Your task to perform on an android device: Go to Maps Image 0: 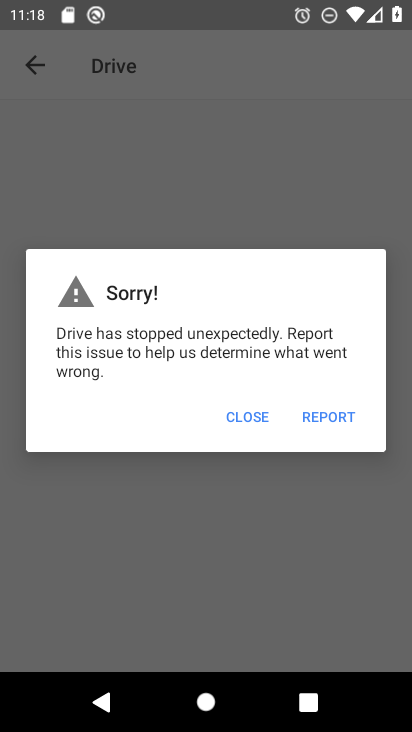
Step 0: press home button
Your task to perform on an android device: Go to Maps Image 1: 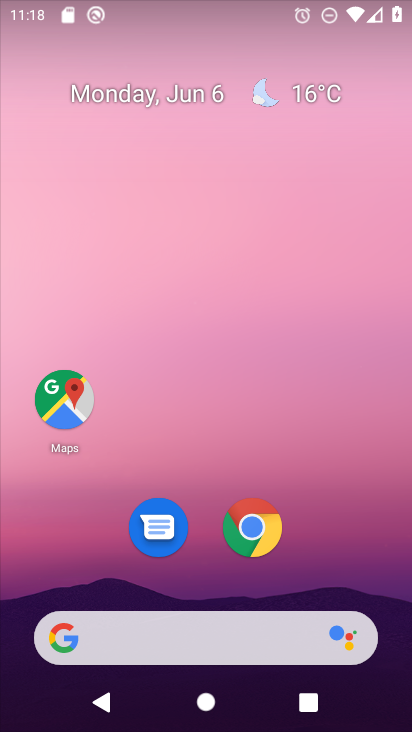
Step 1: drag from (350, 529) to (334, 291)
Your task to perform on an android device: Go to Maps Image 2: 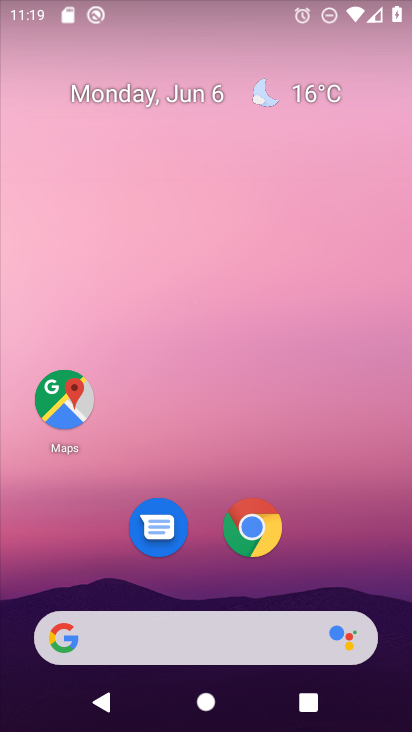
Step 2: drag from (359, 497) to (305, 111)
Your task to perform on an android device: Go to Maps Image 3: 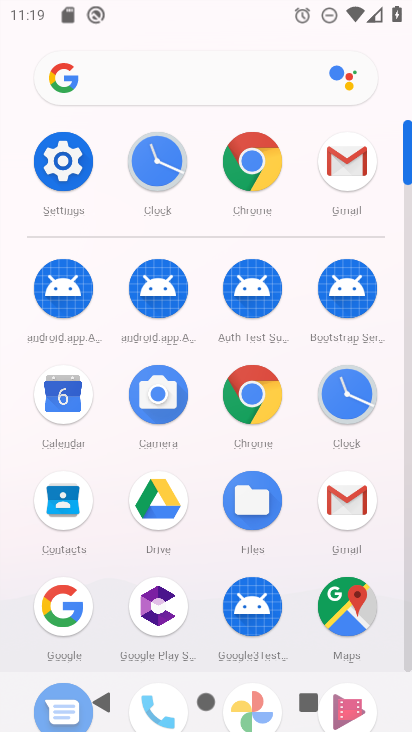
Step 3: click (344, 609)
Your task to perform on an android device: Go to Maps Image 4: 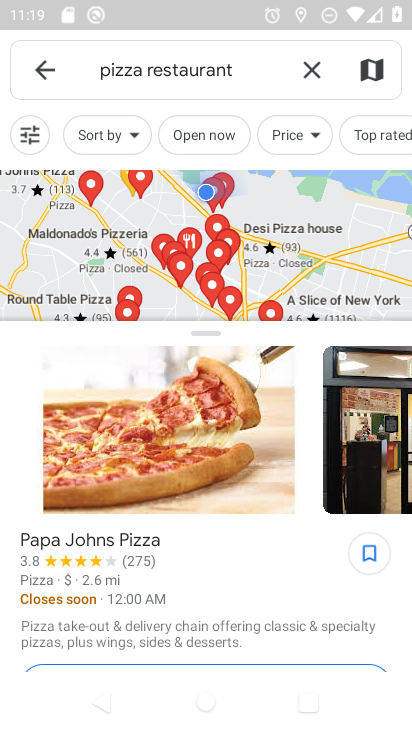
Step 4: task complete